Your task to perform on an android device: turn off improve location accuracy Image 0: 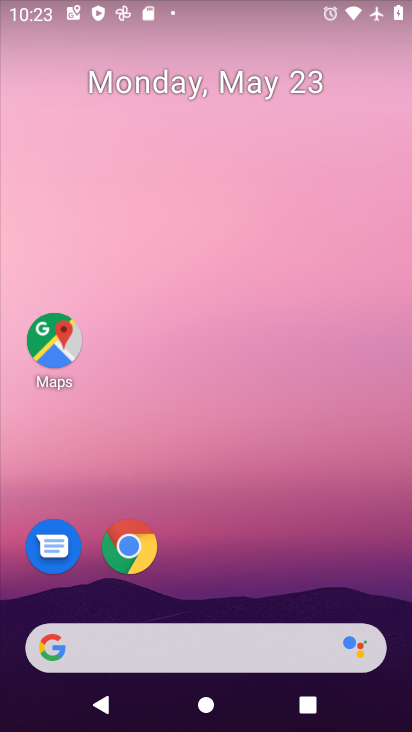
Step 0: drag from (378, 603) to (267, 2)
Your task to perform on an android device: turn off improve location accuracy Image 1: 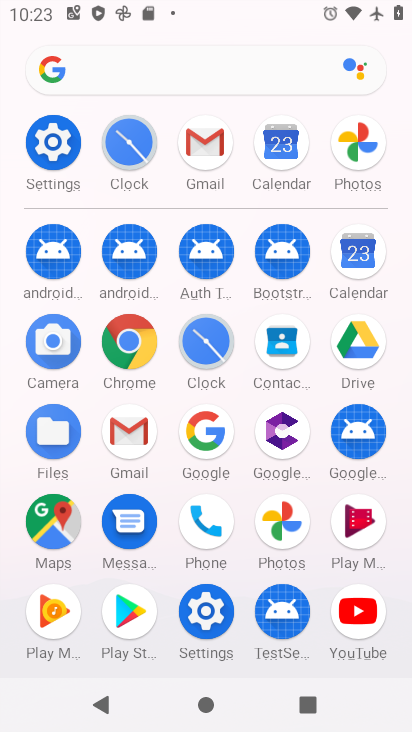
Step 1: click (209, 615)
Your task to perform on an android device: turn off improve location accuracy Image 2: 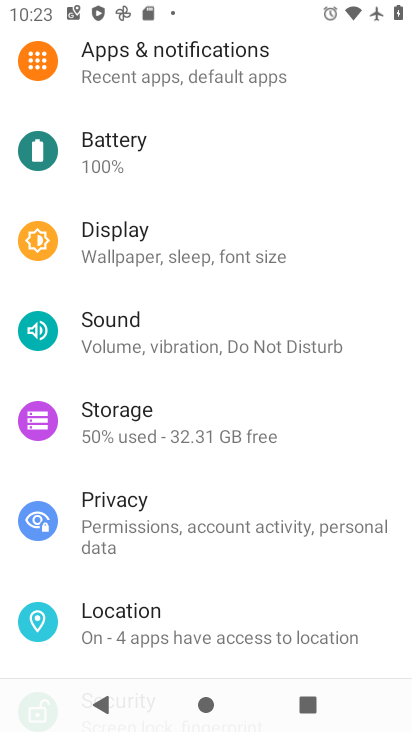
Step 2: drag from (209, 615) to (223, 342)
Your task to perform on an android device: turn off improve location accuracy Image 3: 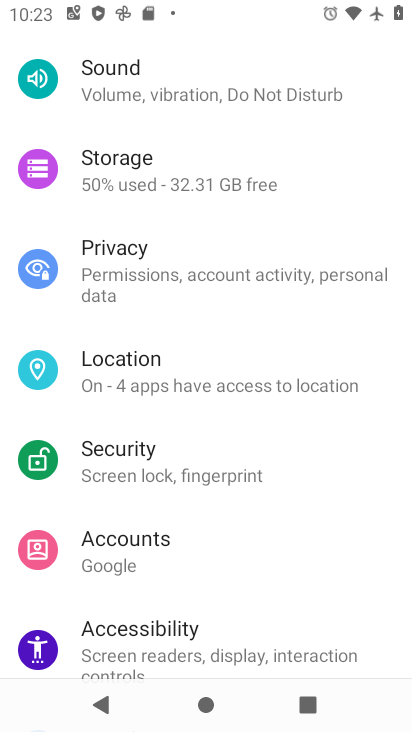
Step 3: click (173, 356)
Your task to perform on an android device: turn off improve location accuracy Image 4: 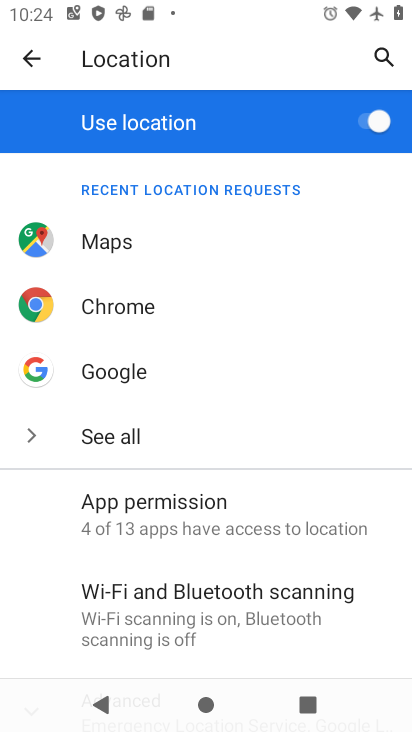
Step 4: drag from (173, 624) to (164, 139)
Your task to perform on an android device: turn off improve location accuracy Image 5: 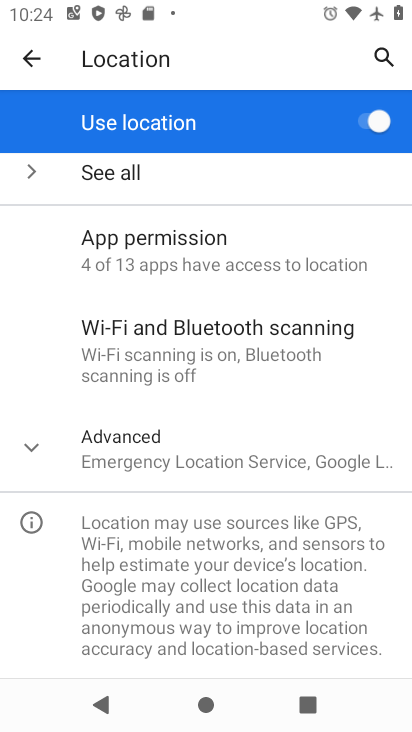
Step 5: click (21, 457)
Your task to perform on an android device: turn off improve location accuracy Image 6: 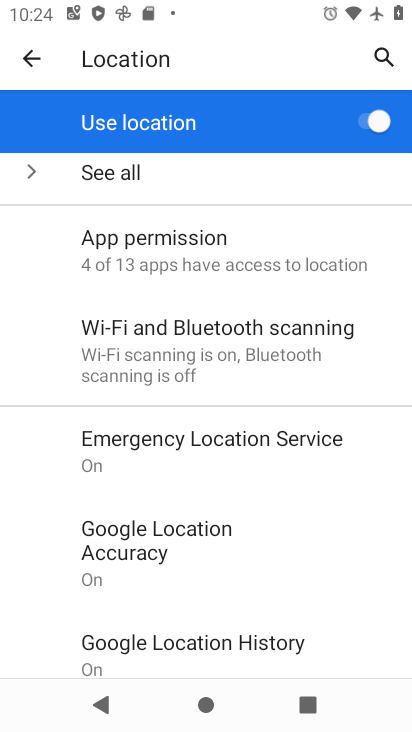
Step 6: click (139, 536)
Your task to perform on an android device: turn off improve location accuracy Image 7: 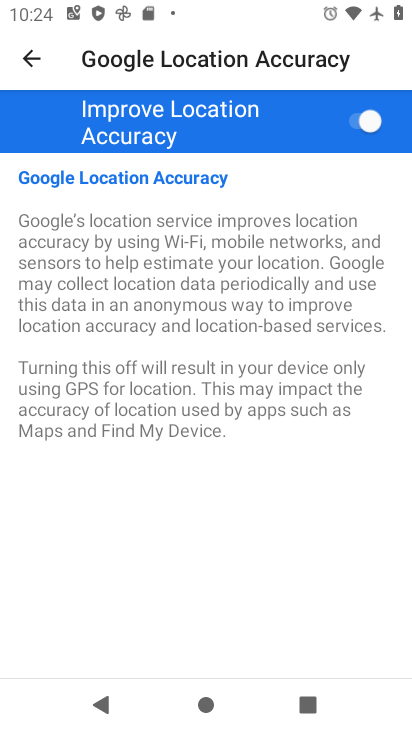
Step 7: click (353, 123)
Your task to perform on an android device: turn off improve location accuracy Image 8: 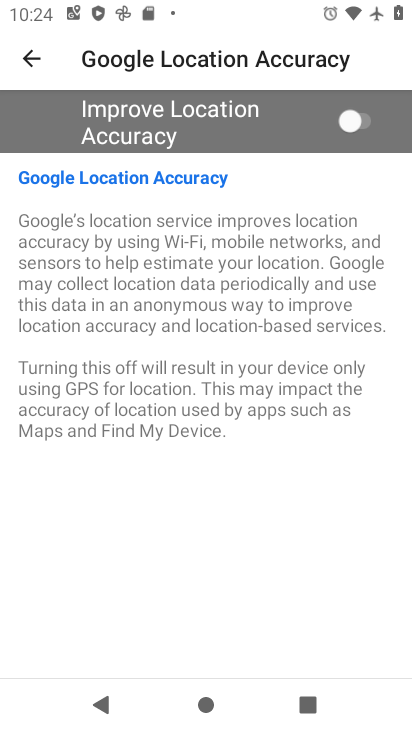
Step 8: task complete